Your task to perform on an android device: Search for Italian restaurants on Maps Image 0: 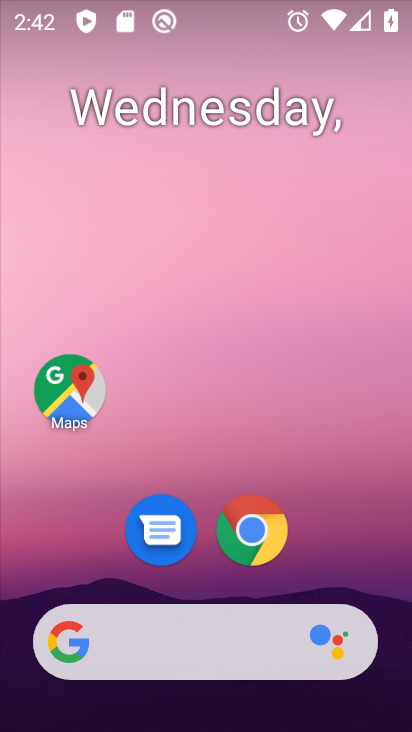
Step 0: click (103, 404)
Your task to perform on an android device: Search for Italian restaurants on Maps Image 1: 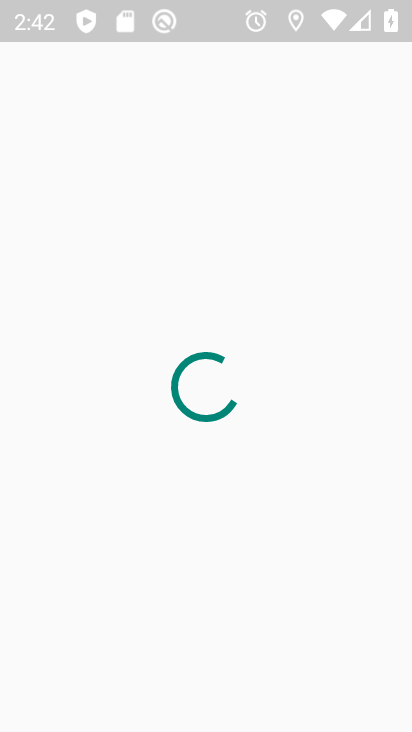
Step 1: click (294, 109)
Your task to perform on an android device: Search for Italian restaurants on Maps Image 2: 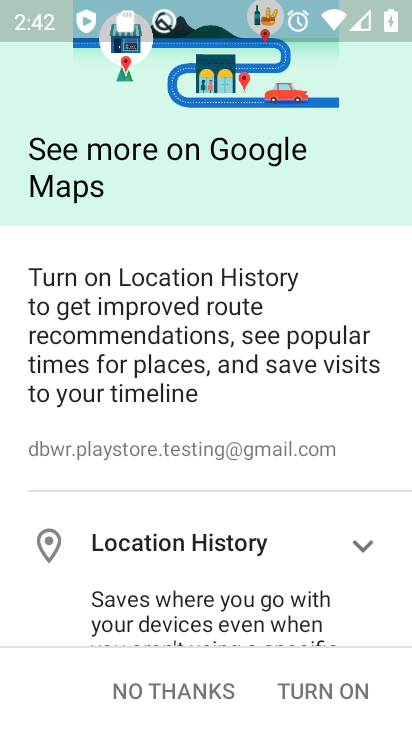
Step 2: click (332, 701)
Your task to perform on an android device: Search for Italian restaurants on Maps Image 3: 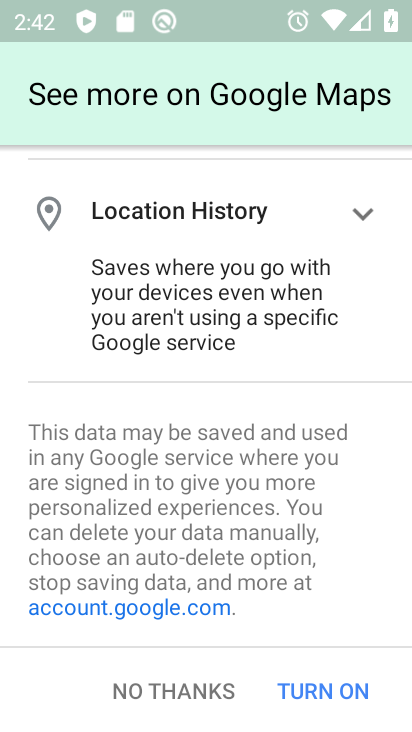
Step 3: click (332, 701)
Your task to perform on an android device: Search for Italian restaurants on Maps Image 4: 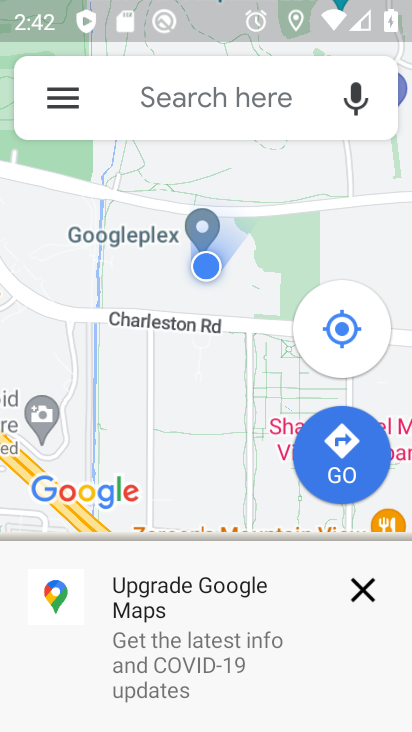
Step 4: click (158, 102)
Your task to perform on an android device: Search for Italian restaurants on Maps Image 5: 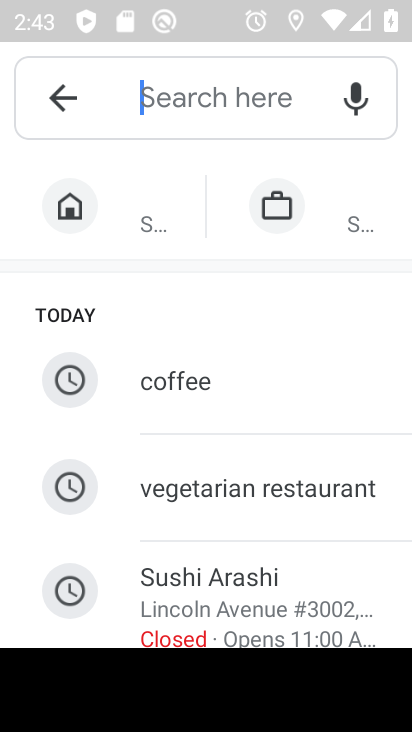
Step 5: type "italian restaurants"
Your task to perform on an android device: Search for Italian restaurants on Maps Image 6: 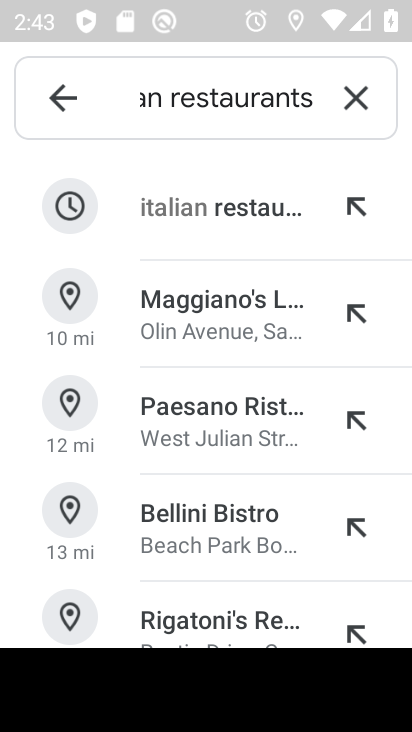
Step 6: click (184, 197)
Your task to perform on an android device: Search for Italian restaurants on Maps Image 7: 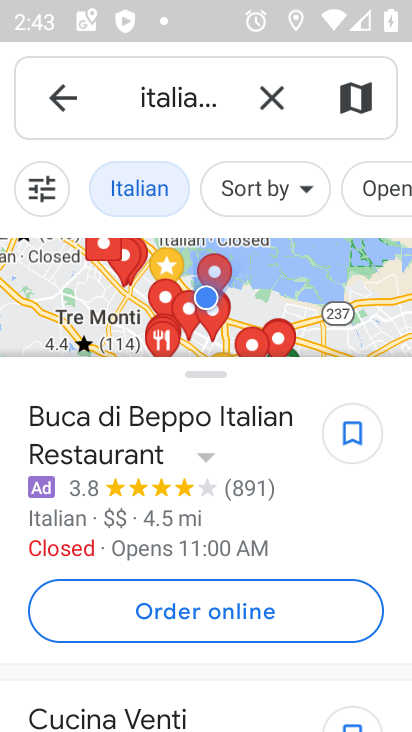
Step 7: task complete